Your task to perform on an android device: toggle sleep mode Image 0: 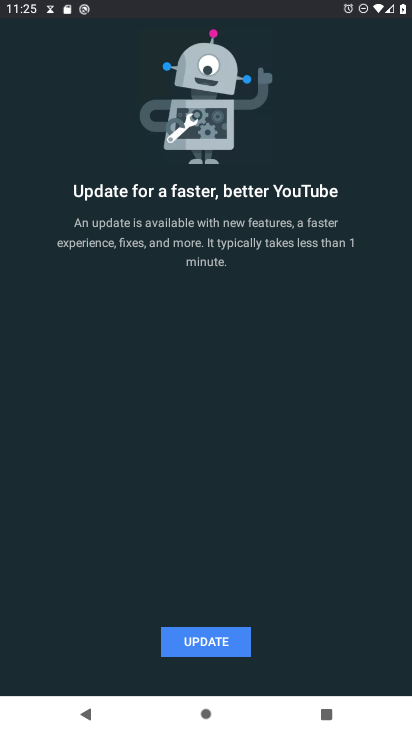
Step 0: press home button
Your task to perform on an android device: toggle sleep mode Image 1: 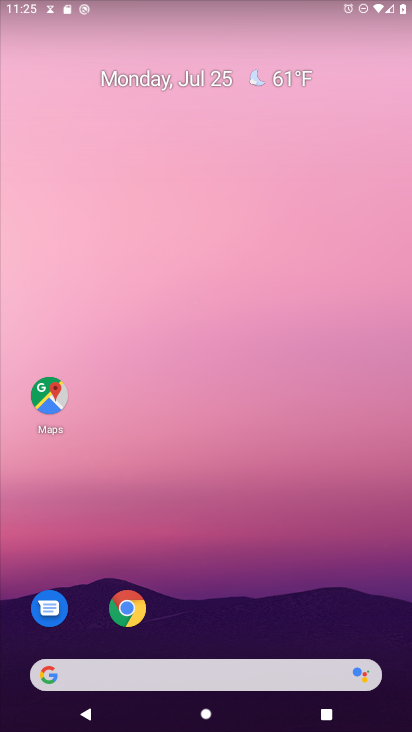
Step 1: drag from (209, 674) to (202, 219)
Your task to perform on an android device: toggle sleep mode Image 2: 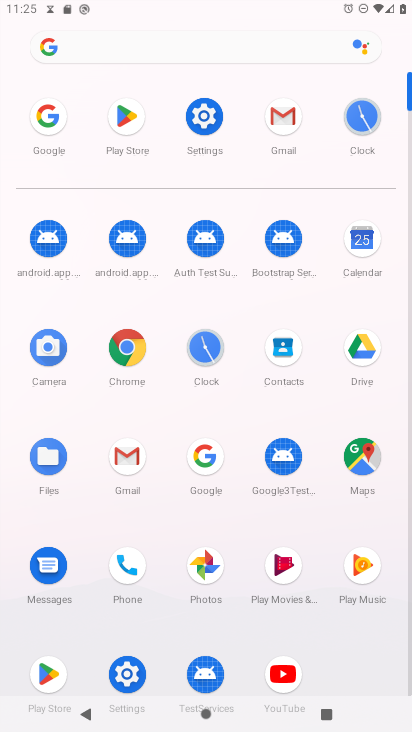
Step 2: click (205, 113)
Your task to perform on an android device: toggle sleep mode Image 3: 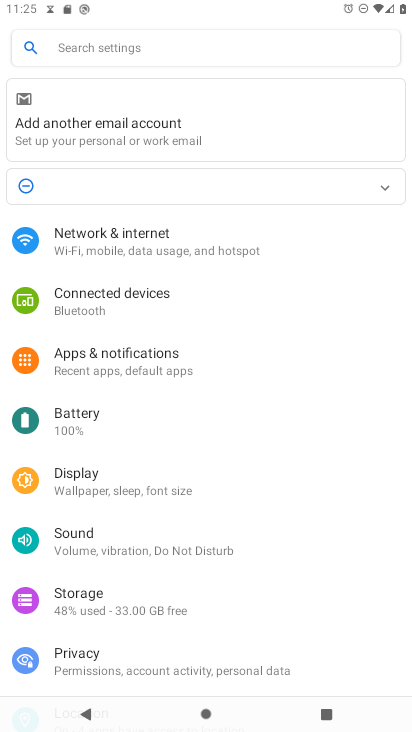
Step 3: click (142, 358)
Your task to perform on an android device: toggle sleep mode Image 4: 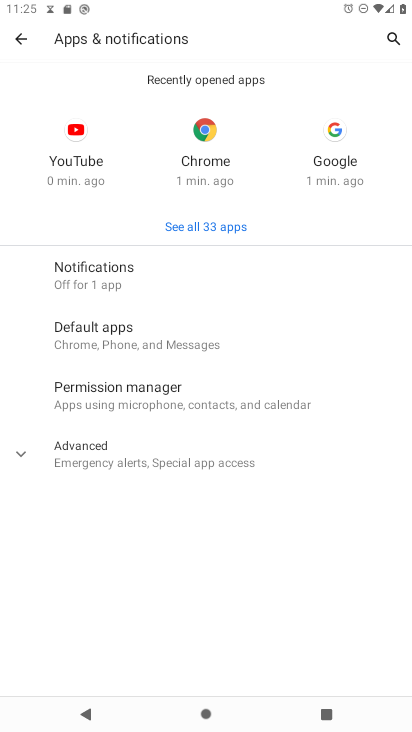
Step 4: click (113, 454)
Your task to perform on an android device: toggle sleep mode Image 5: 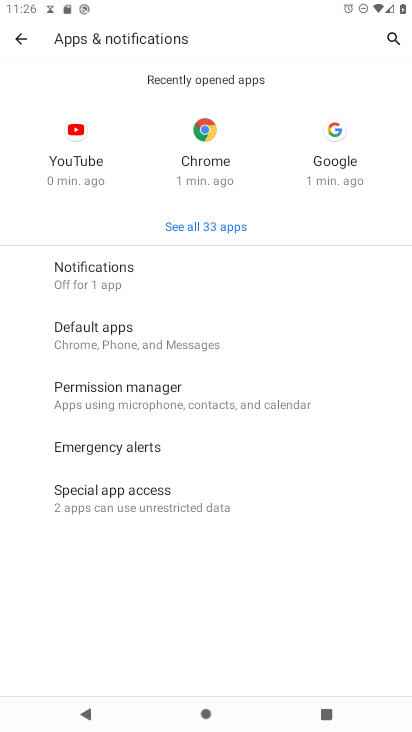
Step 5: press back button
Your task to perform on an android device: toggle sleep mode Image 6: 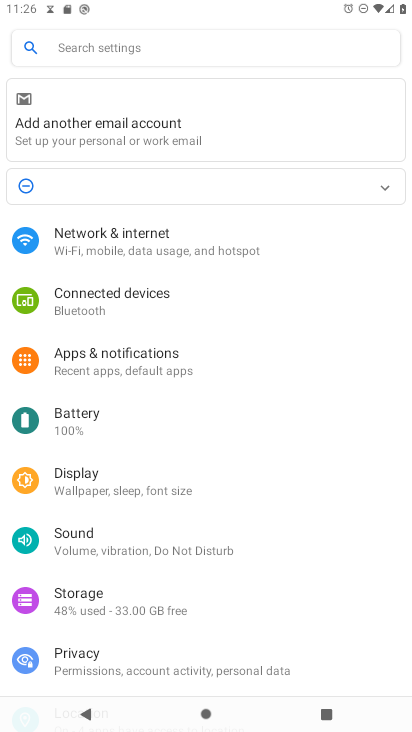
Step 6: click (148, 488)
Your task to perform on an android device: toggle sleep mode Image 7: 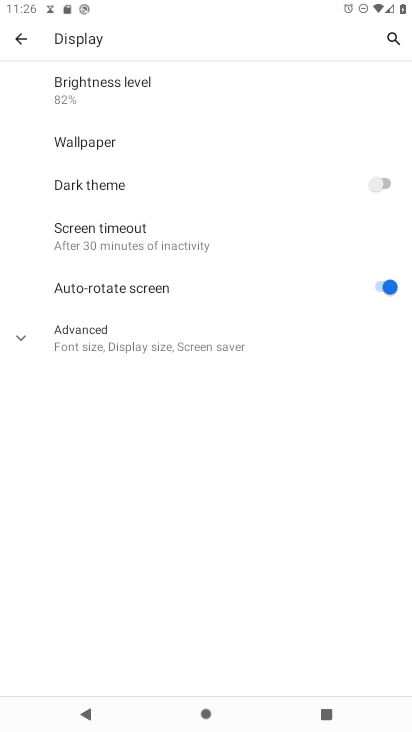
Step 7: click (203, 343)
Your task to perform on an android device: toggle sleep mode Image 8: 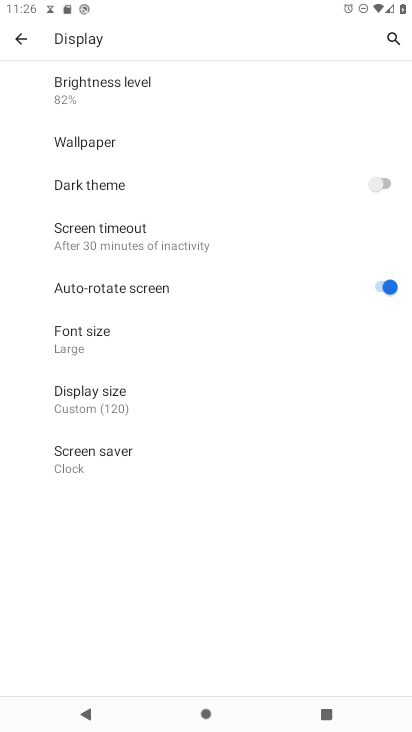
Step 8: click (149, 248)
Your task to perform on an android device: toggle sleep mode Image 9: 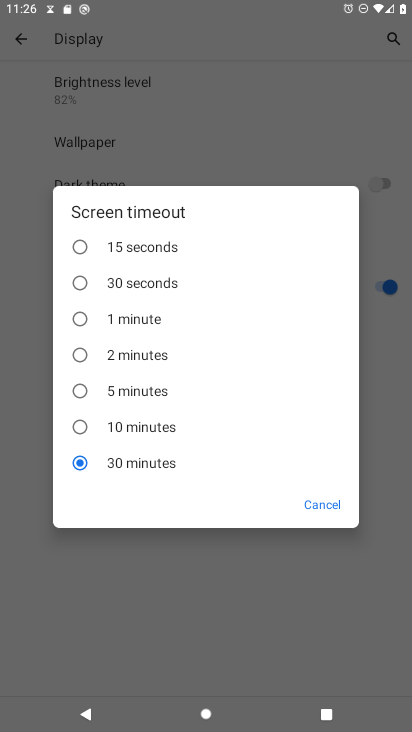
Step 9: click (325, 502)
Your task to perform on an android device: toggle sleep mode Image 10: 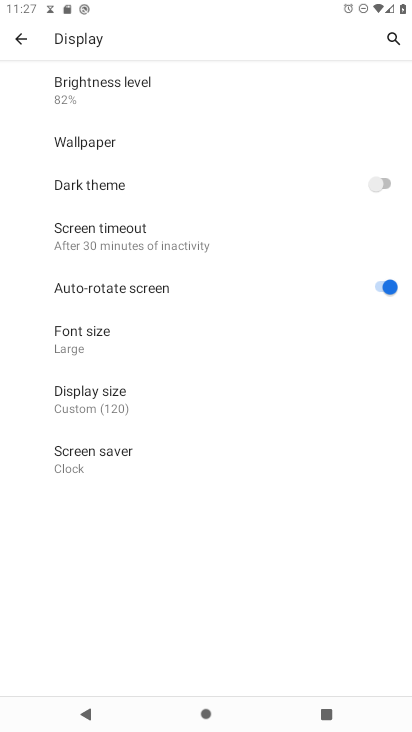
Step 10: task complete